Your task to perform on an android device: make emails show in primary in the gmail app Image 0: 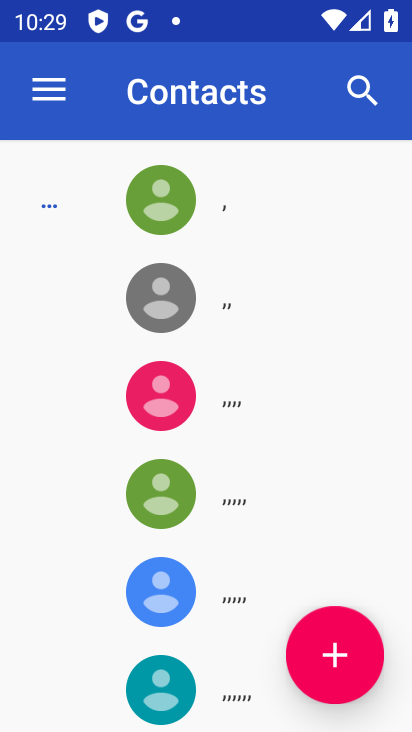
Step 0: press home button
Your task to perform on an android device: make emails show in primary in the gmail app Image 1: 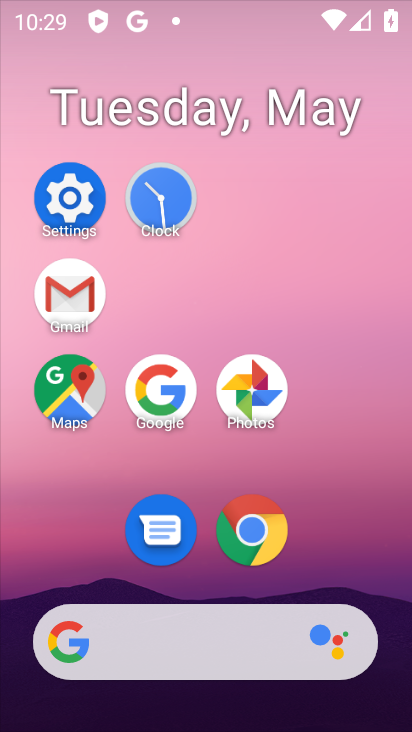
Step 1: click (70, 292)
Your task to perform on an android device: make emails show in primary in the gmail app Image 2: 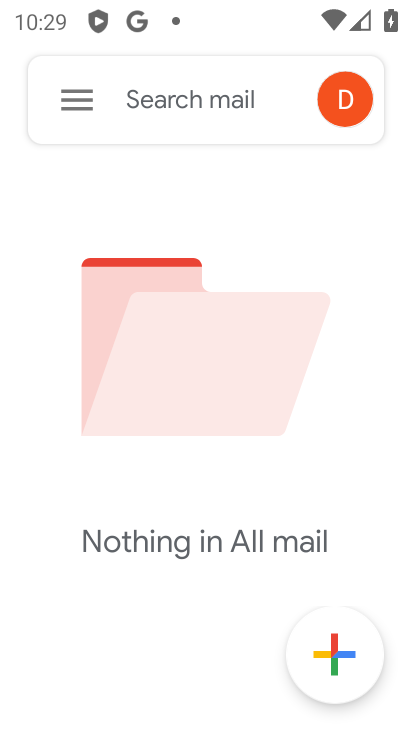
Step 2: click (61, 96)
Your task to perform on an android device: make emails show in primary in the gmail app Image 3: 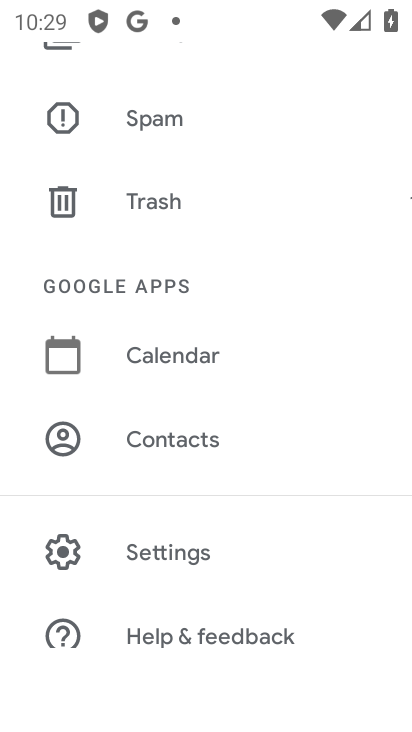
Step 3: click (191, 540)
Your task to perform on an android device: make emails show in primary in the gmail app Image 4: 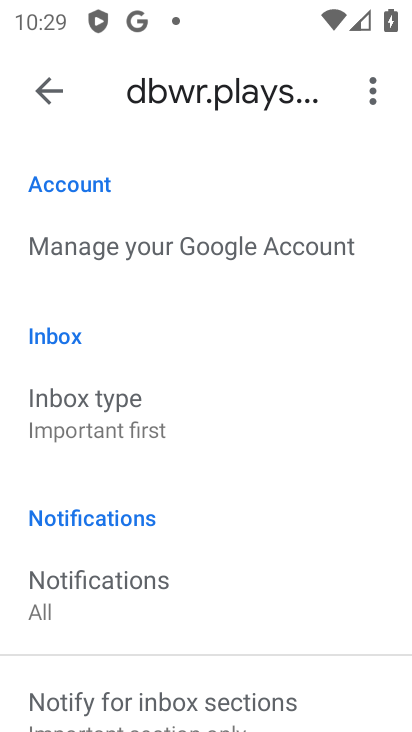
Step 4: click (126, 427)
Your task to perform on an android device: make emails show in primary in the gmail app Image 5: 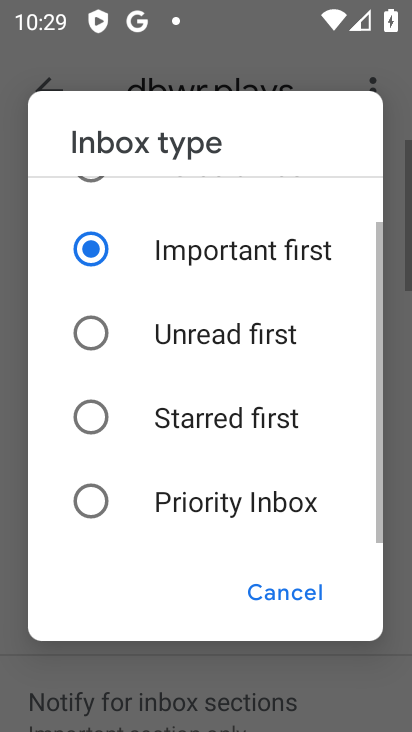
Step 5: drag from (222, 238) to (225, 535)
Your task to perform on an android device: make emails show in primary in the gmail app Image 6: 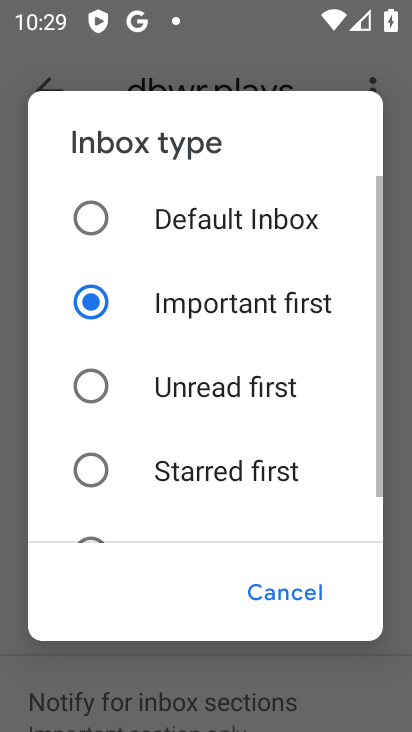
Step 6: click (153, 212)
Your task to perform on an android device: make emails show in primary in the gmail app Image 7: 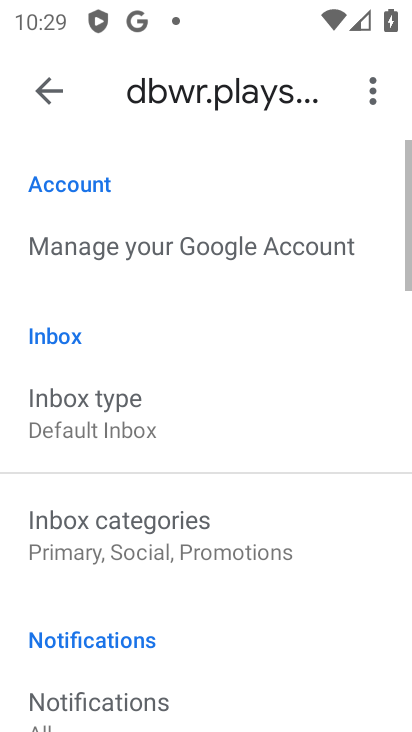
Step 7: click (212, 502)
Your task to perform on an android device: make emails show in primary in the gmail app Image 8: 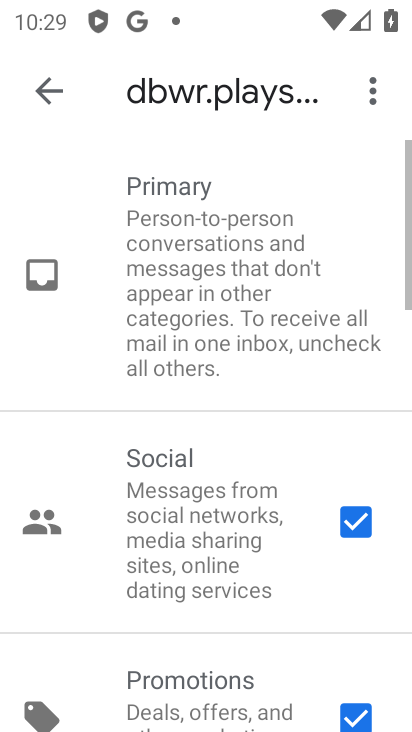
Step 8: click (375, 518)
Your task to perform on an android device: make emails show in primary in the gmail app Image 9: 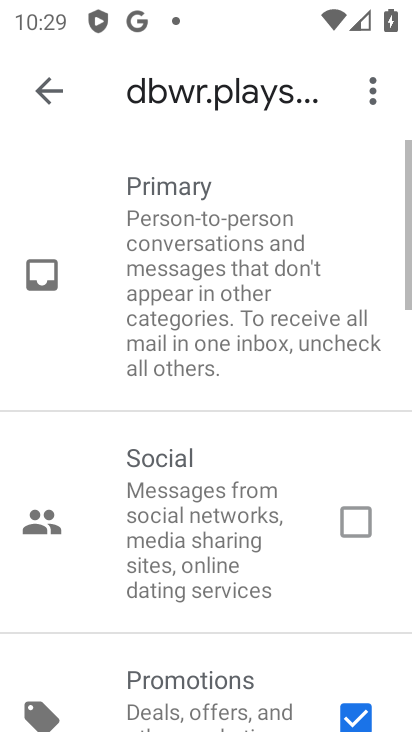
Step 9: click (354, 718)
Your task to perform on an android device: make emails show in primary in the gmail app Image 10: 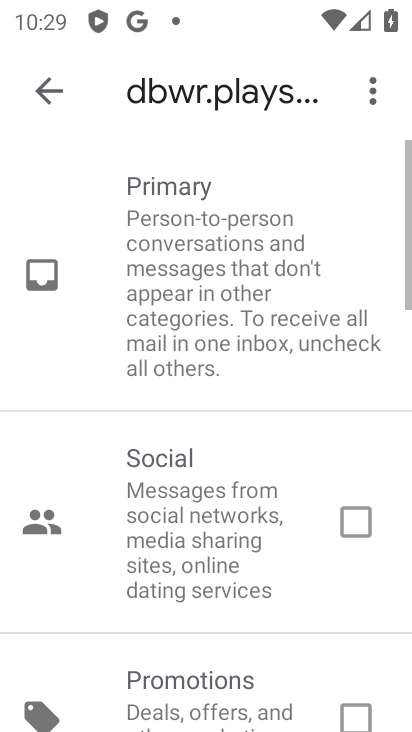
Step 10: task complete